Your task to perform on an android device: Go to privacy settings Image 0: 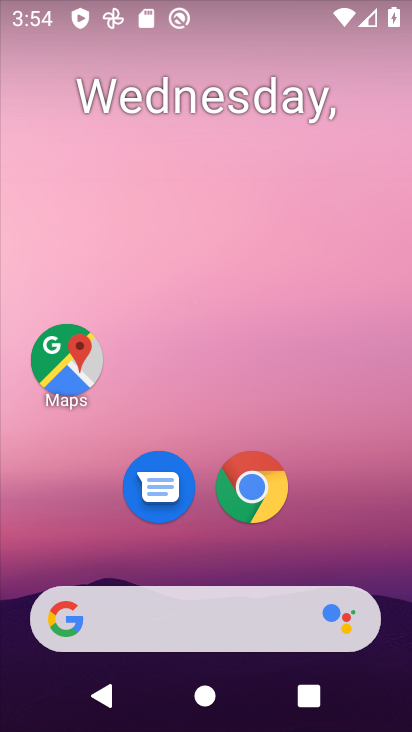
Step 0: drag from (375, 578) to (370, 322)
Your task to perform on an android device: Go to privacy settings Image 1: 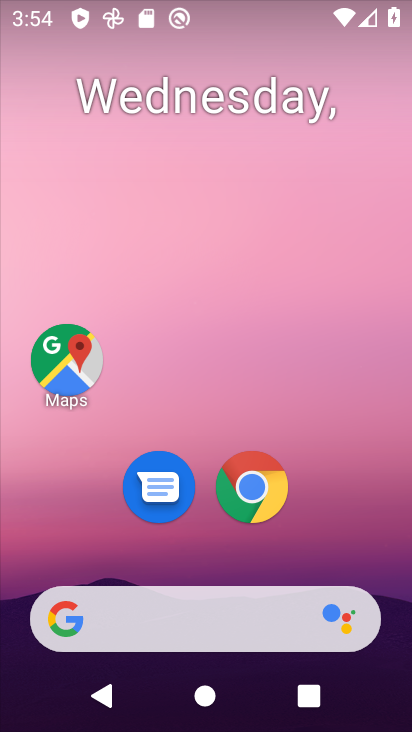
Step 1: drag from (337, 466) to (338, 215)
Your task to perform on an android device: Go to privacy settings Image 2: 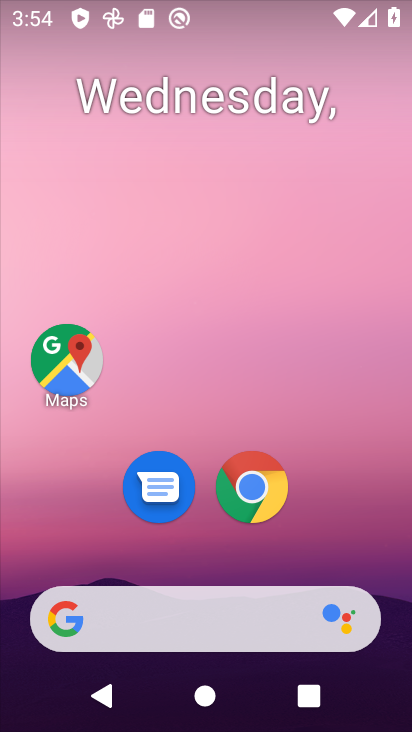
Step 2: drag from (360, 527) to (379, 49)
Your task to perform on an android device: Go to privacy settings Image 3: 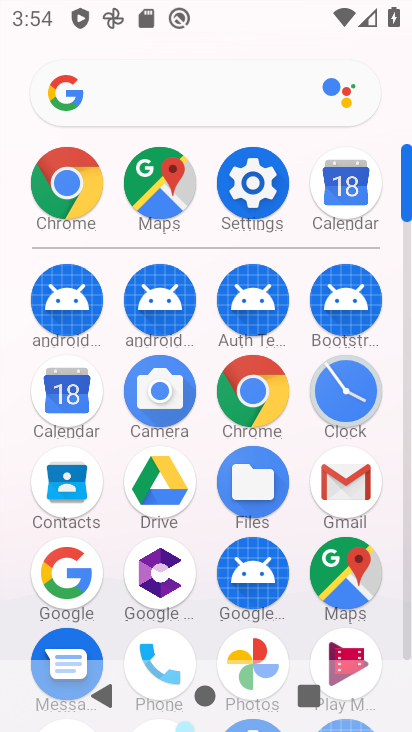
Step 3: click (269, 214)
Your task to perform on an android device: Go to privacy settings Image 4: 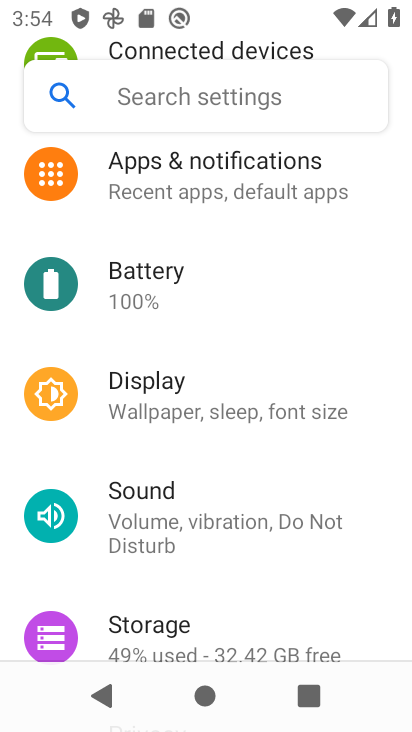
Step 4: drag from (331, 510) to (340, 419)
Your task to perform on an android device: Go to privacy settings Image 5: 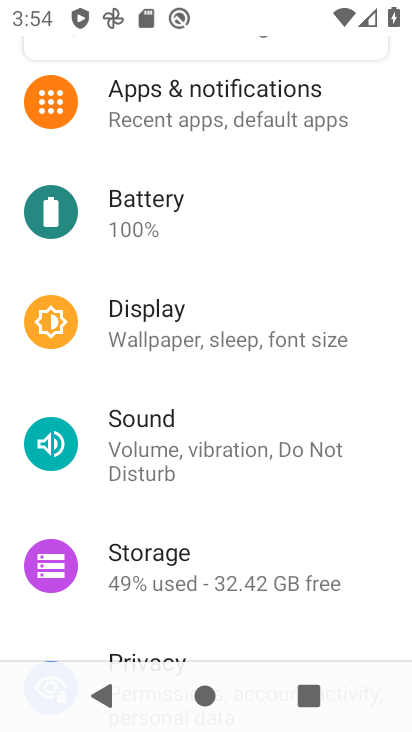
Step 5: drag from (323, 475) to (332, 424)
Your task to perform on an android device: Go to privacy settings Image 6: 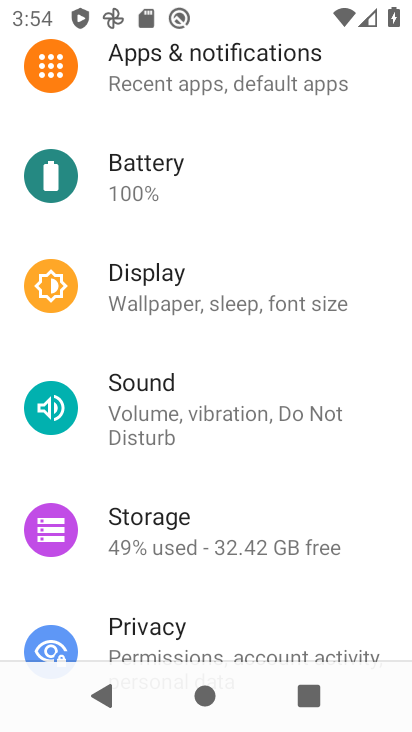
Step 6: drag from (330, 512) to (343, 442)
Your task to perform on an android device: Go to privacy settings Image 7: 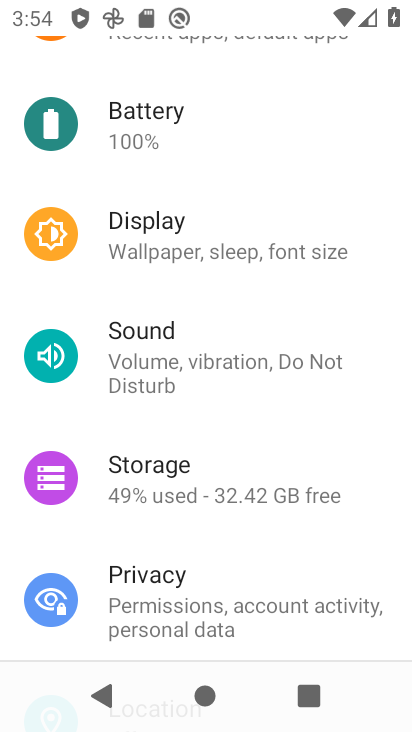
Step 7: click (337, 457)
Your task to perform on an android device: Go to privacy settings Image 8: 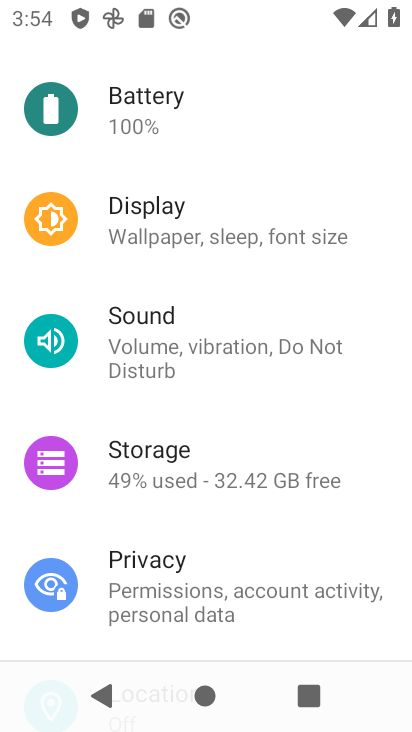
Step 8: drag from (328, 511) to (336, 448)
Your task to perform on an android device: Go to privacy settings Image 9: 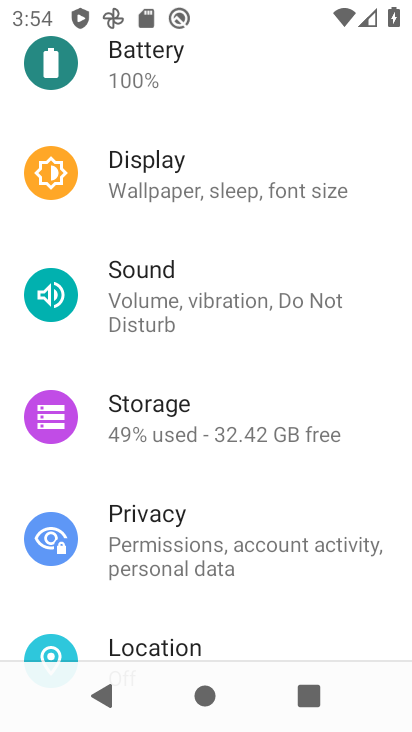
Step 9: drag from (337, 485) to (357, 437)
Your task to perform on an android device: Go to privacy settings Image 10: 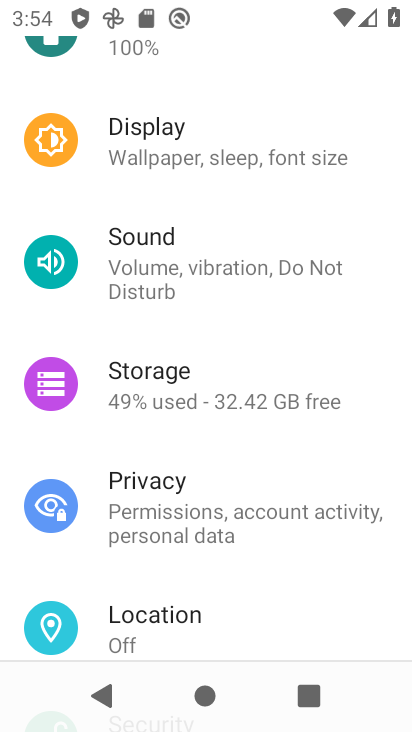
Step 10: drag from (341, 469) to (351, 433)
Your task to perform on an android device: Go to privacy settings Image 11: 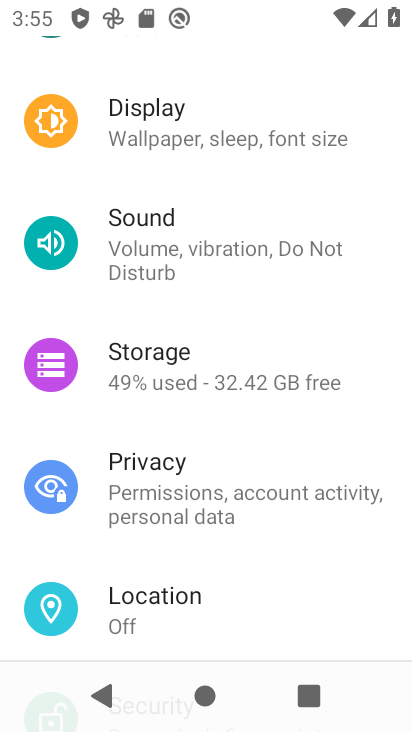
Step 11: drag from (336, 516) to (353, 435)
Your task to perform on an android device: Go to privacy settings Image 12: 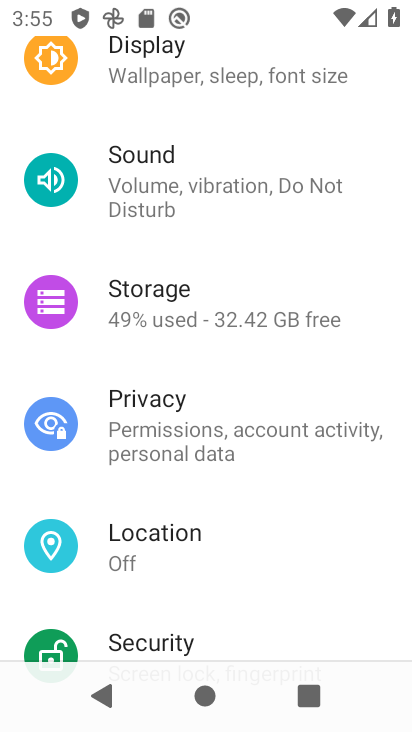
Step 12: drag from (388, 359) to (370, 463)
Your task to perform on an android device: Go to privacy settings Image 13: 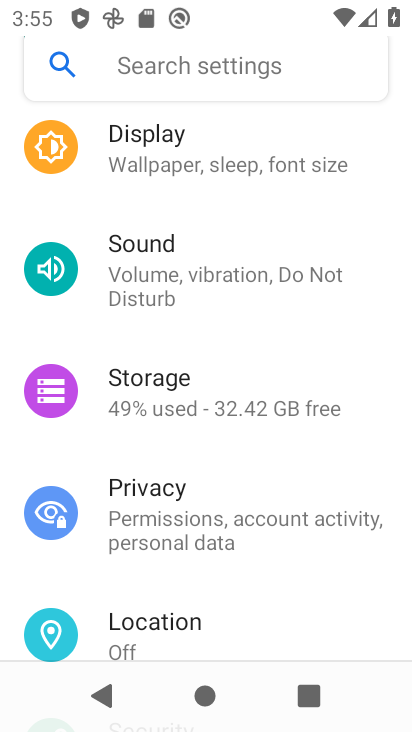
Step 13: click (320, 506)
Your task to perform on an android device: Go to privacy settings Image 14: 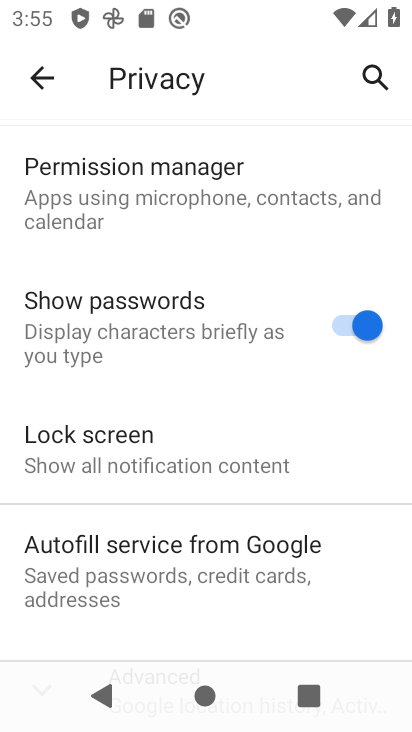
Step 14: task complete